Your task to perform on an android device: Search for Mexican restaurants on Maps Image 0: 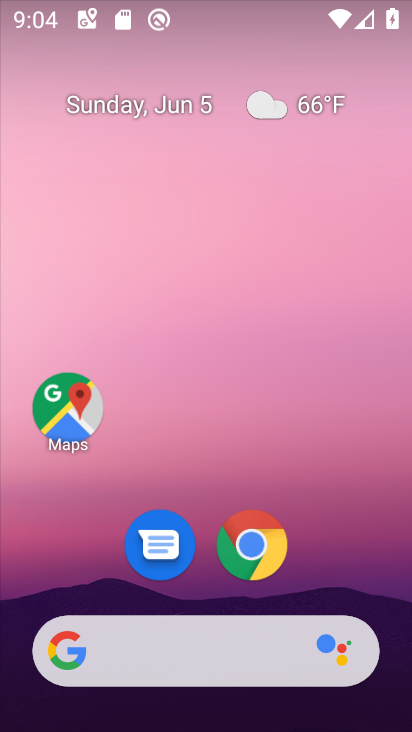
Step 0: drag from (367, 518) to (367, 182)
Your task to perform on an android device: Search for Mexican restaurants on Maps Image 1: 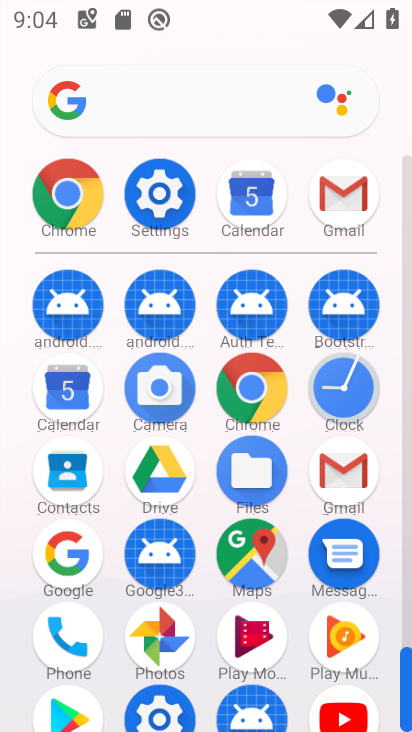
Step 1: click (249, 552)
Your task to perform on an android device: Search for Mexican restaurants on Maps Image 2: 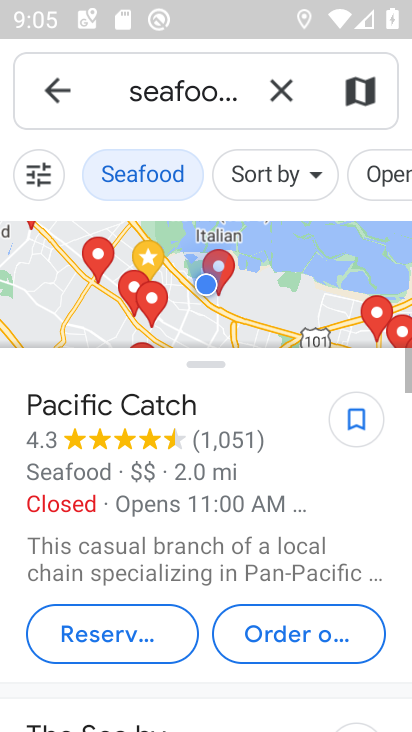
Step 2: click (282, 86)
Your task to perform on an android device: Search for Mexican restaurants on Maps Image 3: 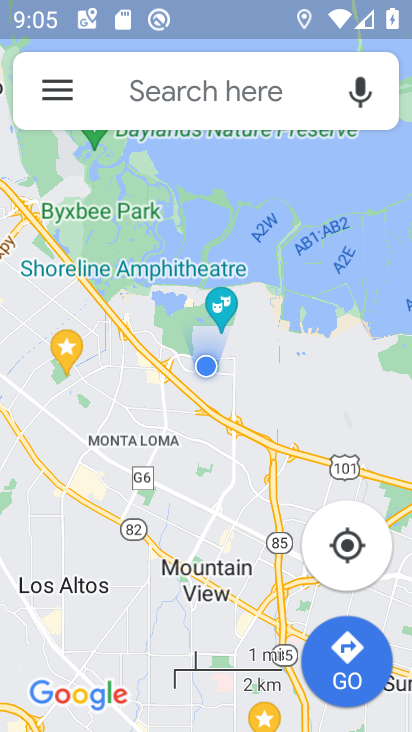
Step 3: click (245, 93)
Your task to perform on an android device: Search for Mexican restaurants on Maps Image 4: 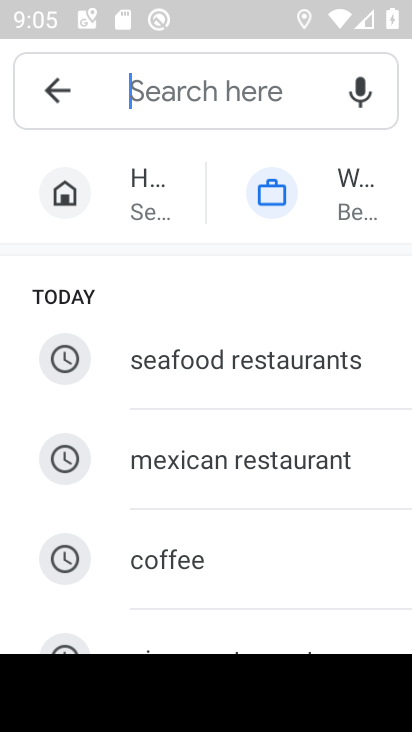
Step 4: type "mexican restaurants"
Your task to perform on an android device: Search for Mexican restaurants on Maps Image 5: 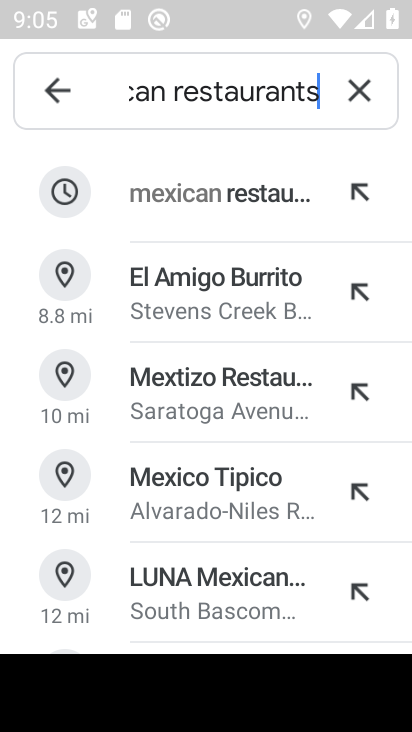
Step 5: click (272, 197)
Your task to perform on an android device: Search for Mexican restaurants on Maps Image 6: 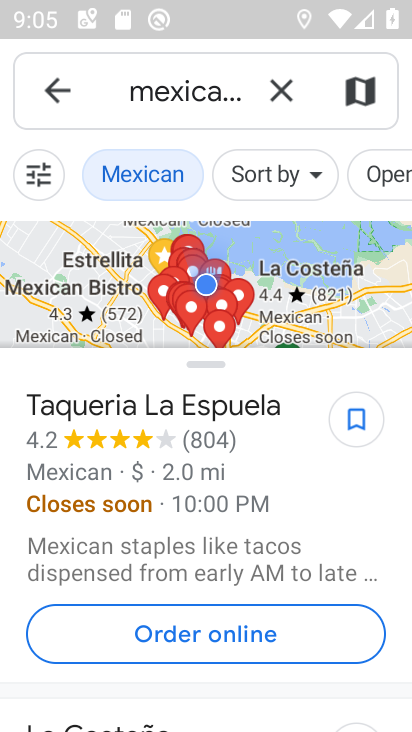
Step 6: task complete